Your task to perform on an android device: star an email in the gmail app Image 0: 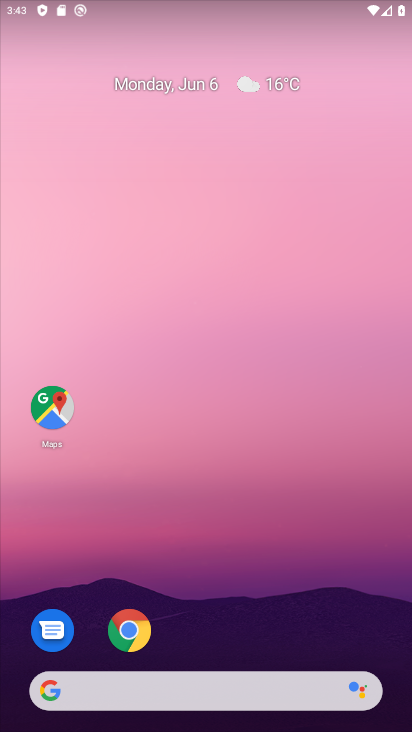
Step 0: drag from (216, 651) to (339, 125)
Your task to perform on an android device: star an email in the gmail app Image 1: 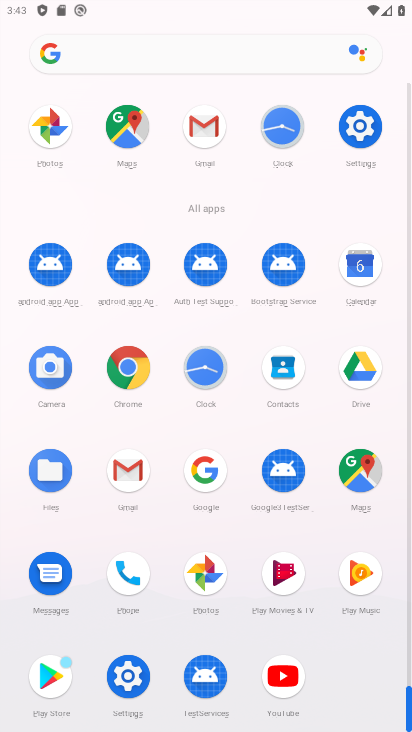
Step 1: click (139, 481)
Your task to perform on an android device: star an email in the gmail app Image 2: 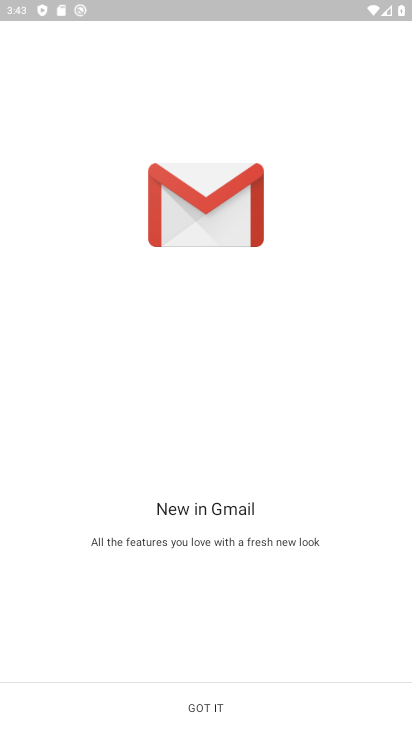
Step 2: click (212, 713)
Your task to perform on an android device: star an email in the gmail app Image 3: 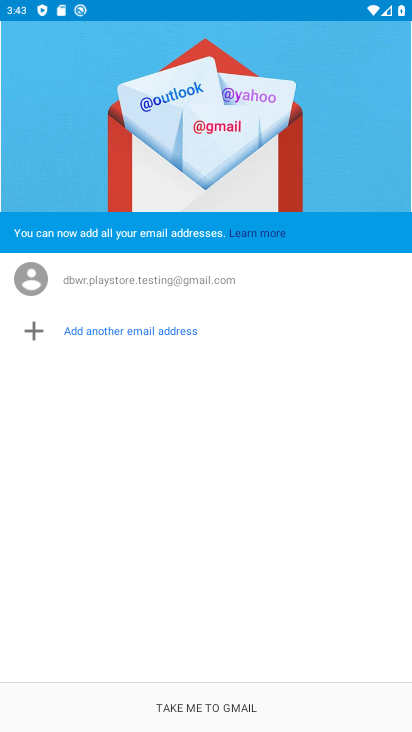
Step 3: click (212, 713)
Your task to perform on an android device: star an email in the gmail app Image 4: 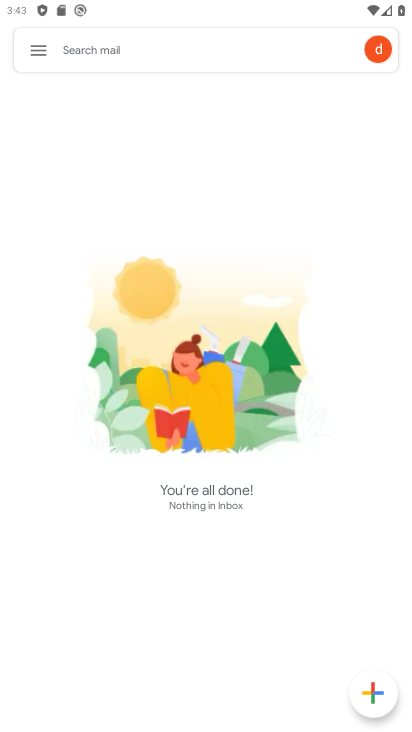
Step 4: click (46, 72)
Your task to perform on an android device: star an email in the gmail app Image 5: 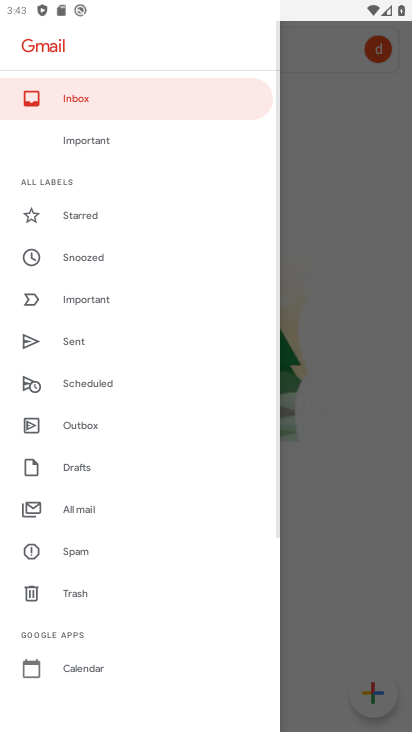
Step 5: drag from (115, 559) to (230, 200)
Your task to perform on an android device: star an email in the gmail app Image 6: 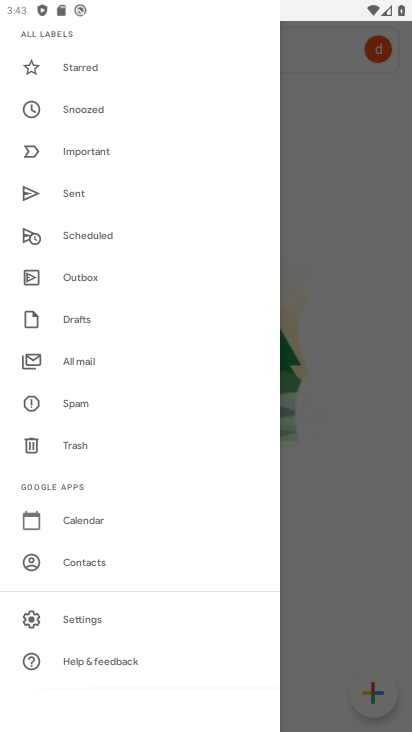
Step 6: click (128, 363)
Your task to perform on an android device: star an email in the gmail app Image 7: 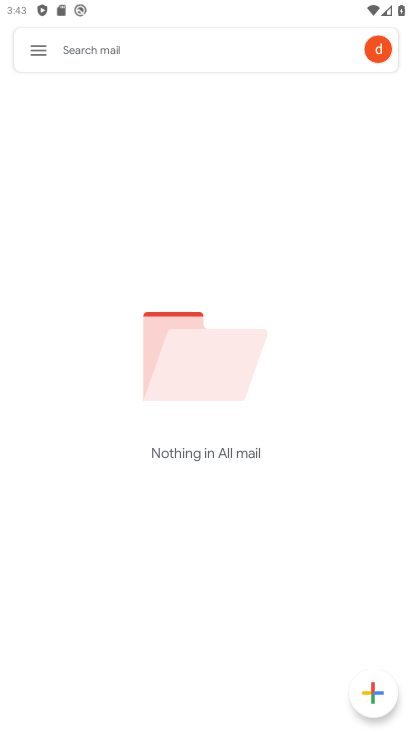
Step 7: task complete